Your task to perform on an android device: turn on bluetooth scan Image 0: 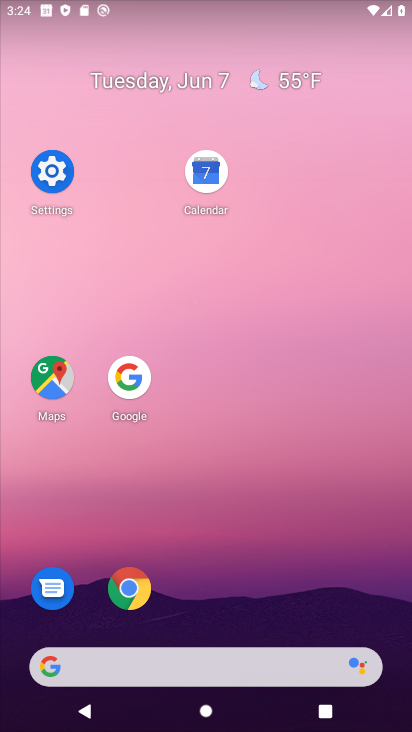
Step 0: click (49, 175)
Your task to perform on an android device: turn on bluetooth scan Image 1: 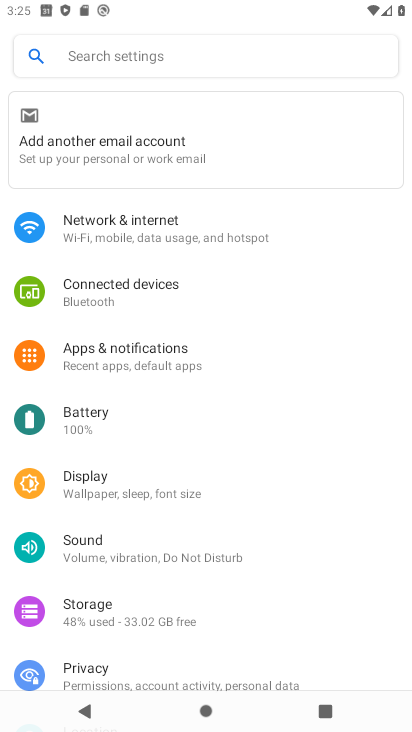
Step 1: drag from (223, 556) to (240, 217)
Your task to perform on an android device: turn on bluetooth scan Image 2: 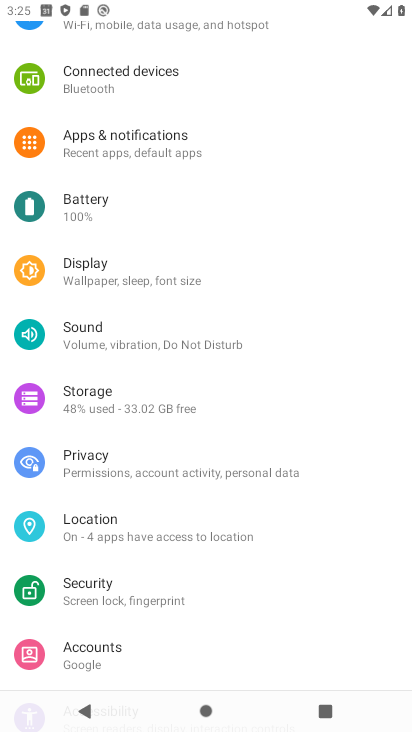
Step 2: click (196, 516)
Your task to perform on an android device: turn on bluetooth scan Image 3: 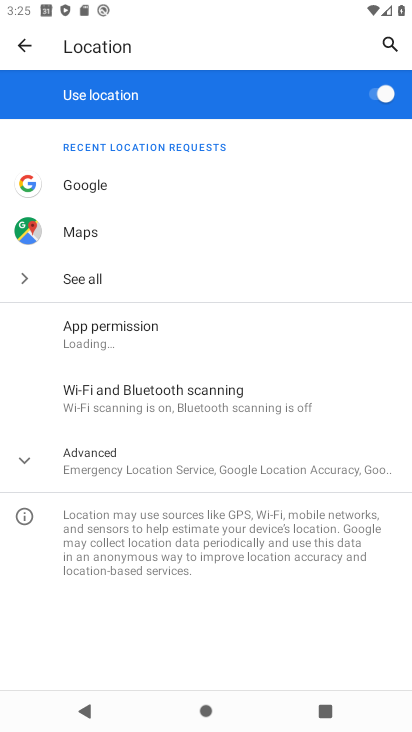
Step 3: click (213, 468)
Your task to perform on an android device: turn on bluetooth scan Image 4: 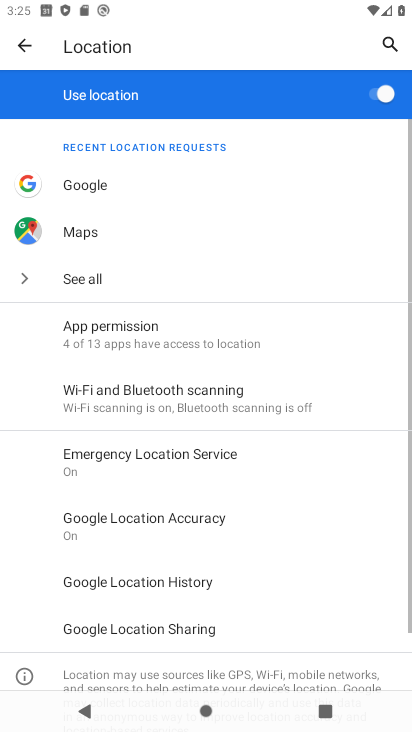
Step 4: click (209, 414)
Your task to perform on an android device: turn on bluetooth scan Image 5: 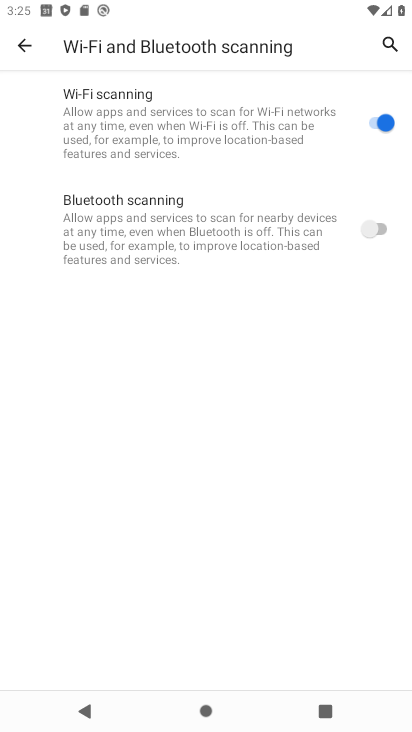
Step 5: click (377, 216)
Your task to perform on an android device: turn on bluetooth scan Image 6: 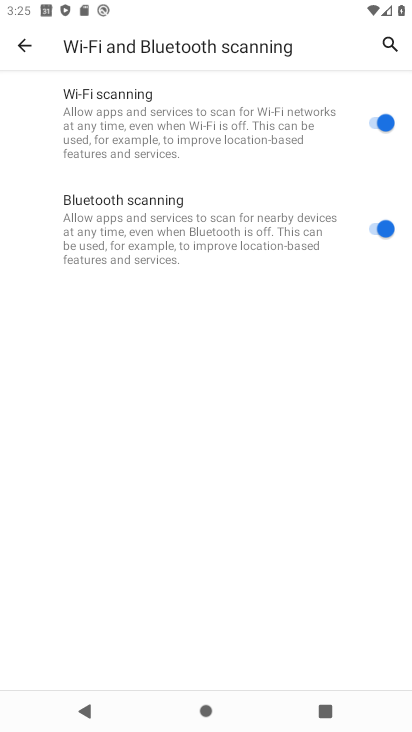
Step 6: task complete